Your task to perform on an android device: Go to sound settings Image 0: 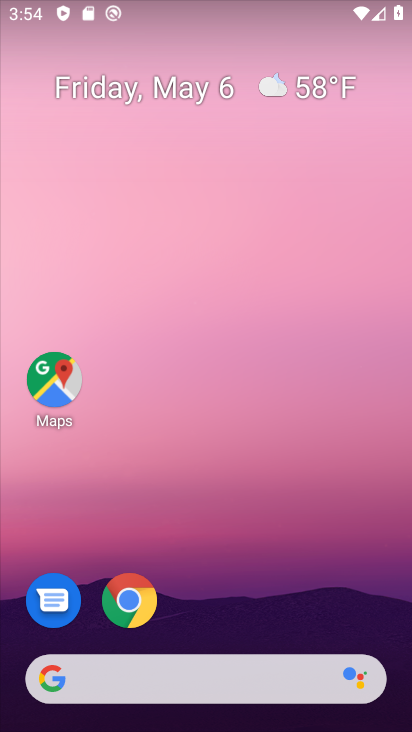
Step 0: drag from (225, 613) to (279, 137)
Your task to perform on an android device: Go to sound settings Image 1: 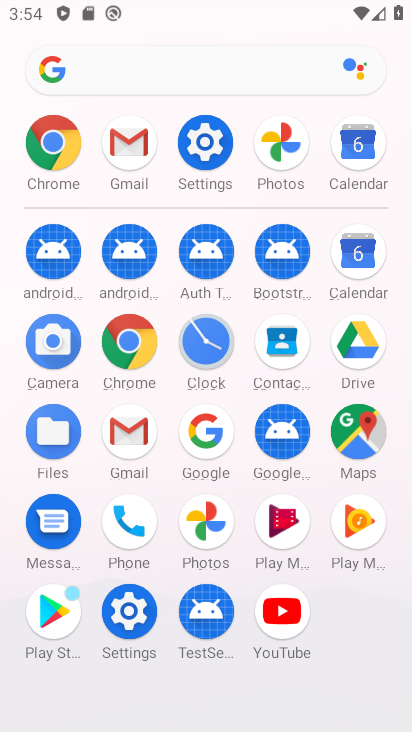
Step 1: click (140, 602)
Your task to perform on an android device: Go to sound settings Image 2: 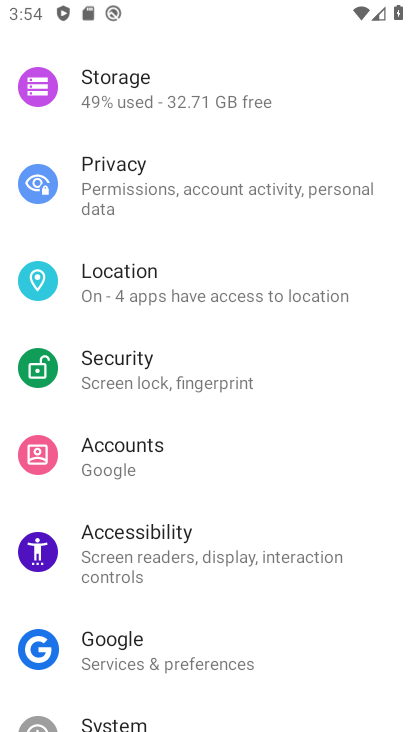
Step 2: drag from (169, 631) to (215, 370)
Your task to perform on an android device: Go to sound settings Image 3: 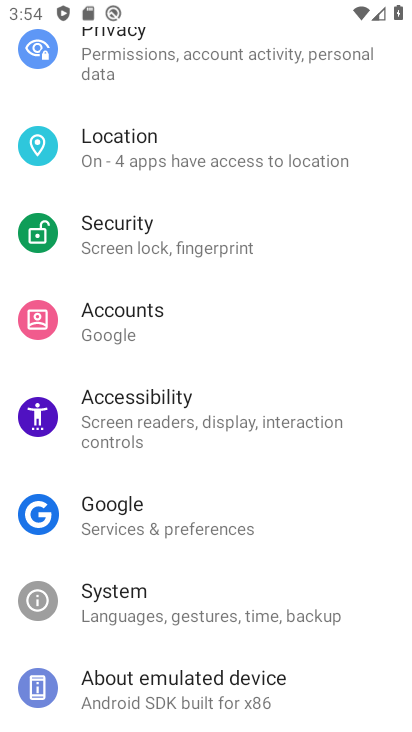
Step 3: drag from (149, 625) to (184, 421)
Your task to perform on an android device: Go to sound settings Image 4: 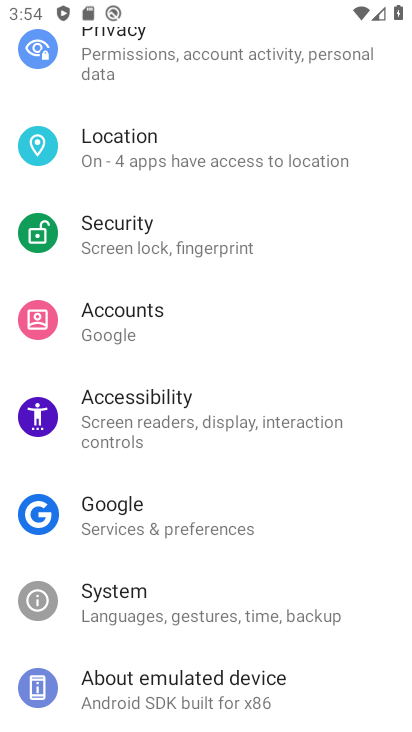
Step 4: drag from (211, 287) to (214, 621)
Your task to perform on an android device: Go to sound settings Image 5: 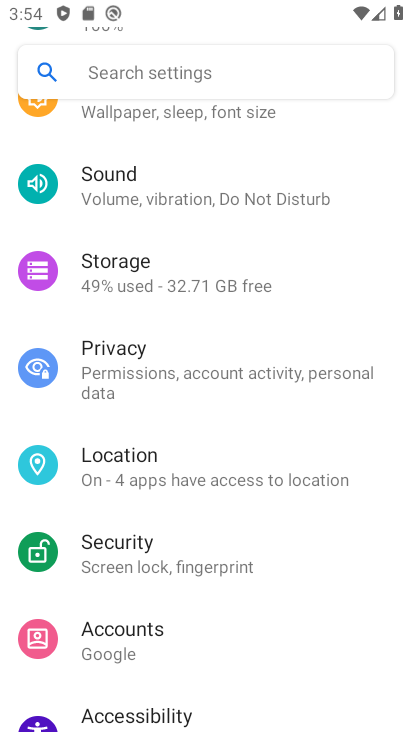
Step 5: click (184, 210)
Your task to perform on an android device: Go to sound settings Image 6: 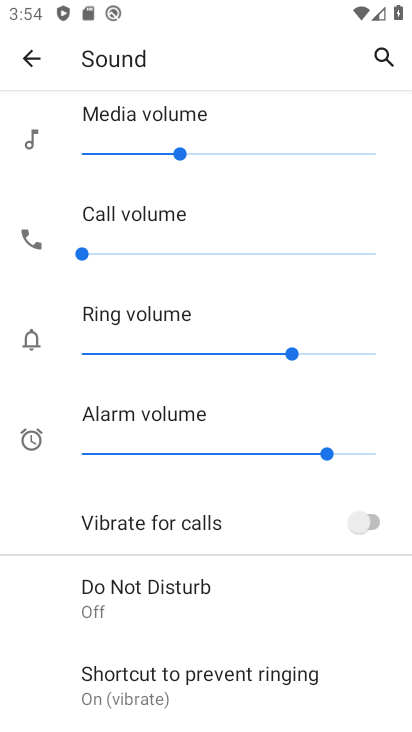
Step 6: task complete